Your task to perform on an android device: Open Google Image 0: 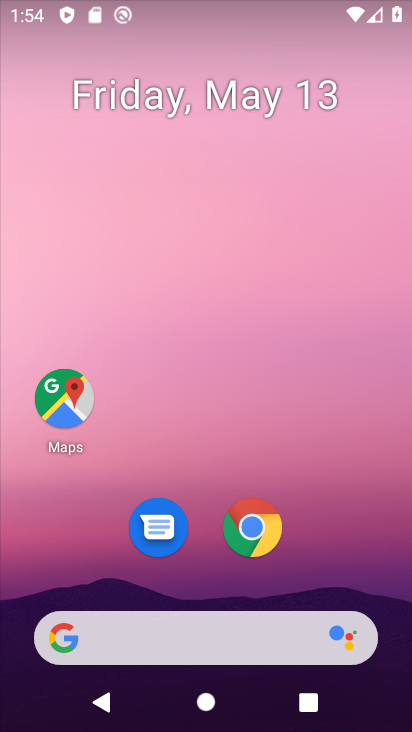
Step 0: drag from (318, 555) to (325, 152)
Your task to perform on an android device: Open Google Image 1: 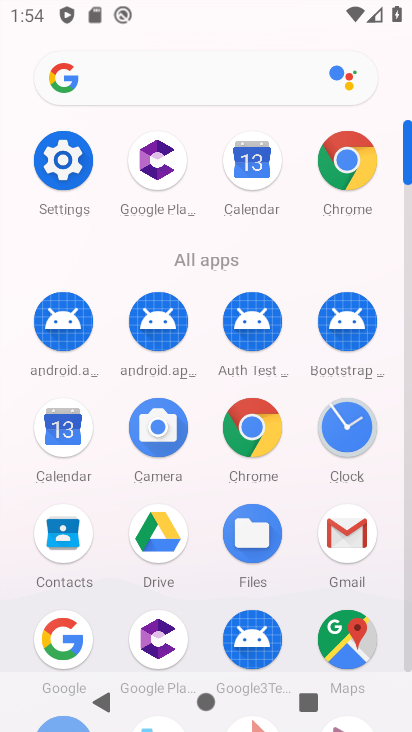
Step 1: click (47, 653)
Your task to perform on an android device: Open Google Image 2: 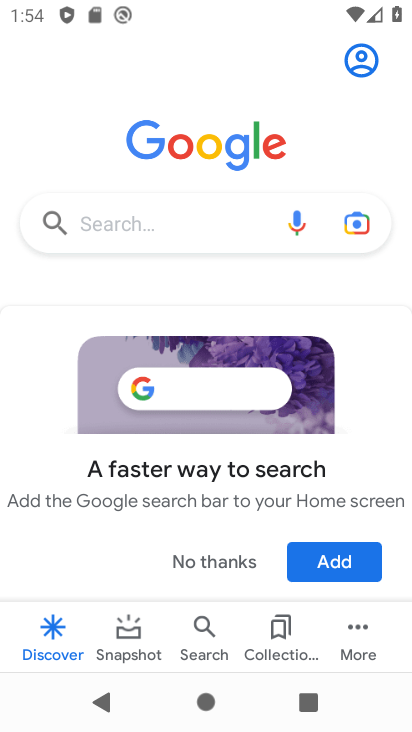
Step 2: task complete